Your task to perform on an android device: Open Youtube and go to "Your channel" Image 0: 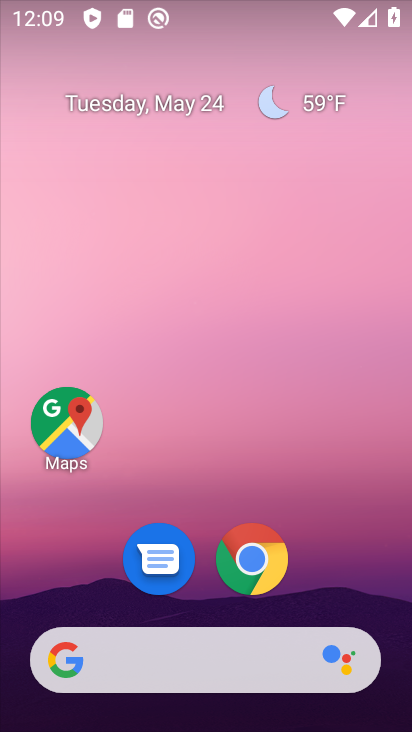
Step 0: click (377, 474)
Your task to perform on an android device: Open Youtube and go to "Your channel" Image 1: 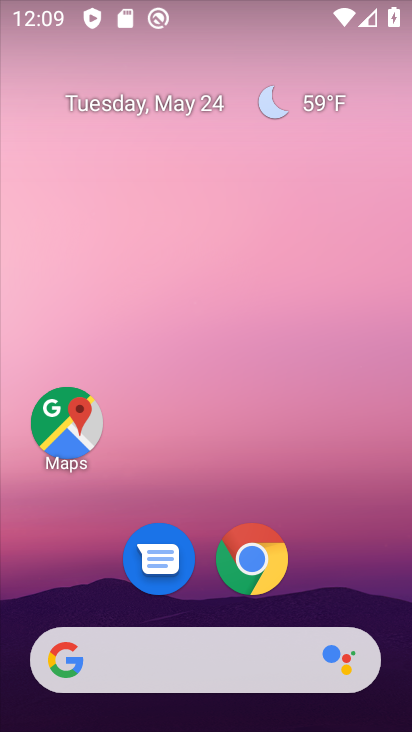
Step 1: drag from (398, 689) to (372, 306)
Your task to perform on an android device: Open Youtube and go to "Your channel" Image 2: 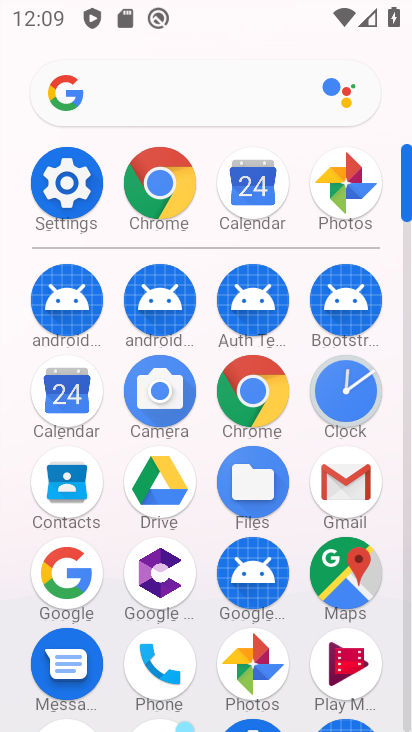
Step 2: drag from (402, 148) to (407, 88)
Your task to perform on an android device: Open Youtube and go to "Your channel" Image 3: 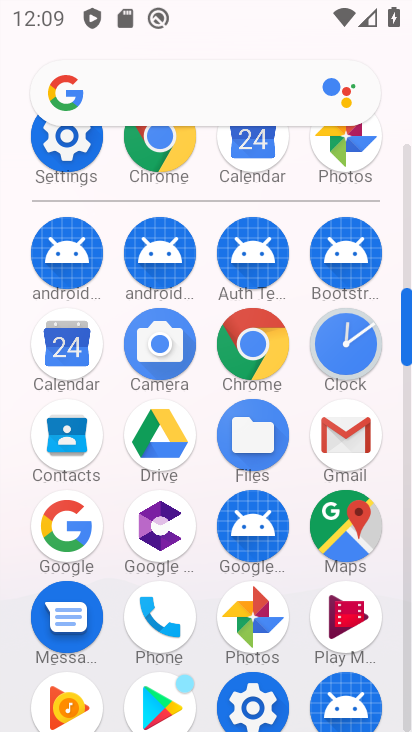
Step 3: drag from (405, 289) to (403, 208)
Your task to perform on an android device: Open Youtube and go to "Your channel" Image 4: 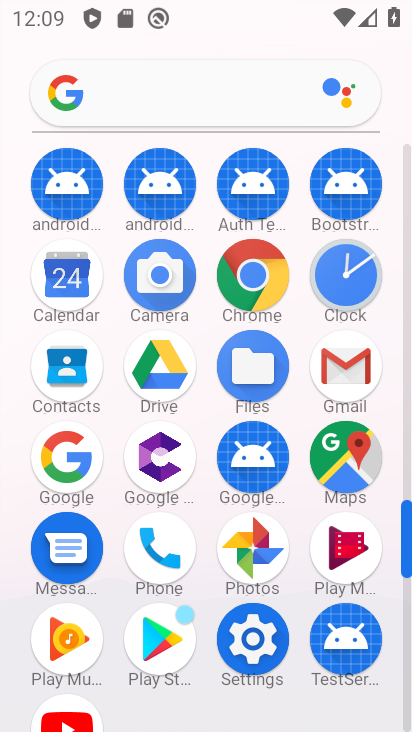
Step 4: click (69, 704)
Your task to perform on an android device: Open Youtube and go to "Your channel" Image 5: 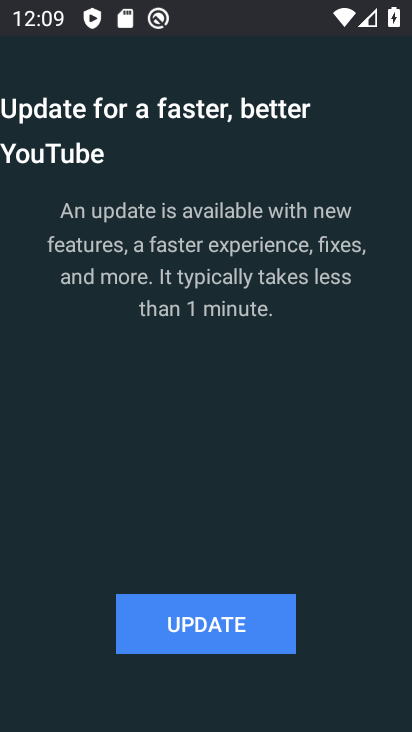
Step 5: click (277, 592)
Your task to perform on an android device: Open Youtube and go to "Your channel" Image 6: 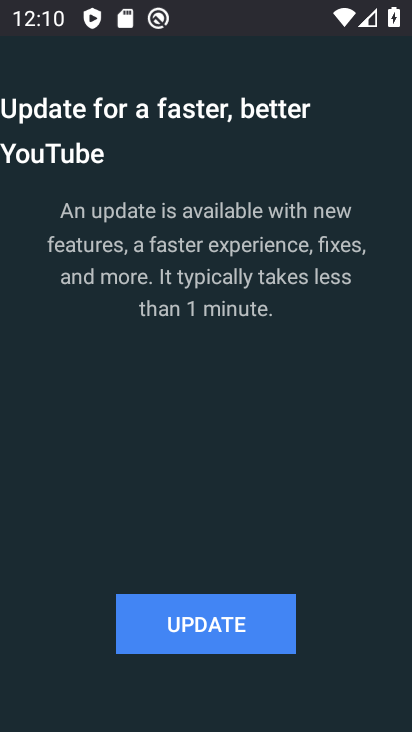
Step 6: click (238, 639)
Your task to perform on an android device: Open Youtube and go to "Your channel" Image 7: 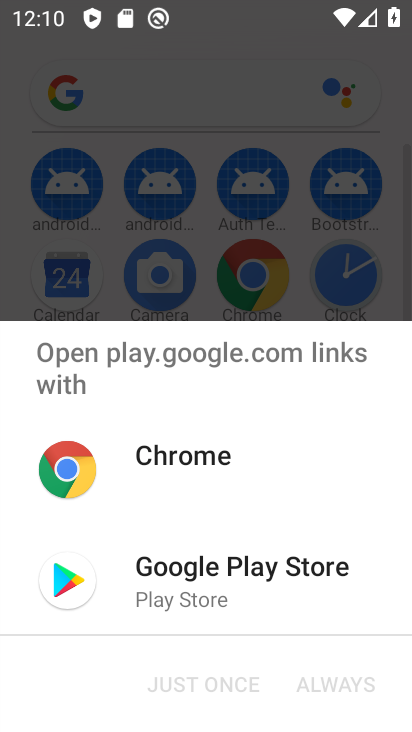
Step 7: click (155, 575)
Your task to perform on an android device: Open Youtube and go to "Your channel" Image 8: 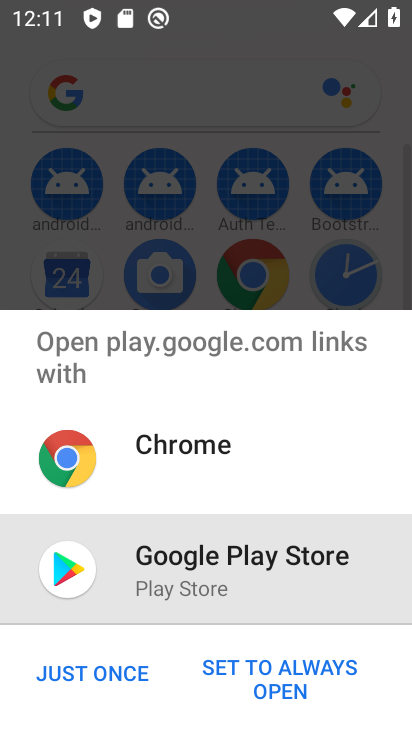
Step 8: click (102, 662)
Your task to perform on an android device: Open Youtube and go to "Your channel" Image 9: 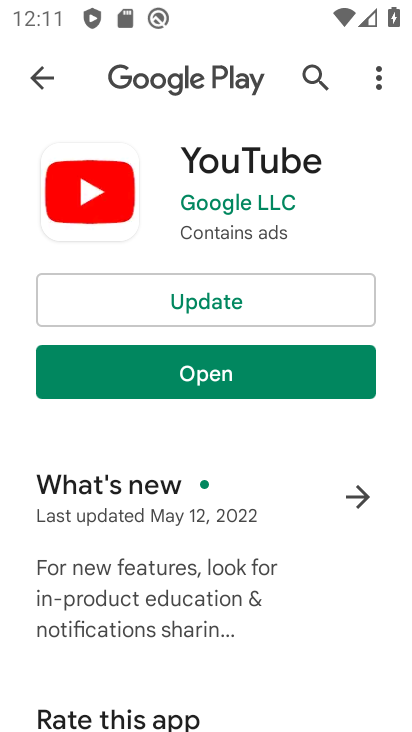
Step 9: click (233, 294)
Your task to perform on an android device: Open Youtube and go to "Your channel" Image 10: 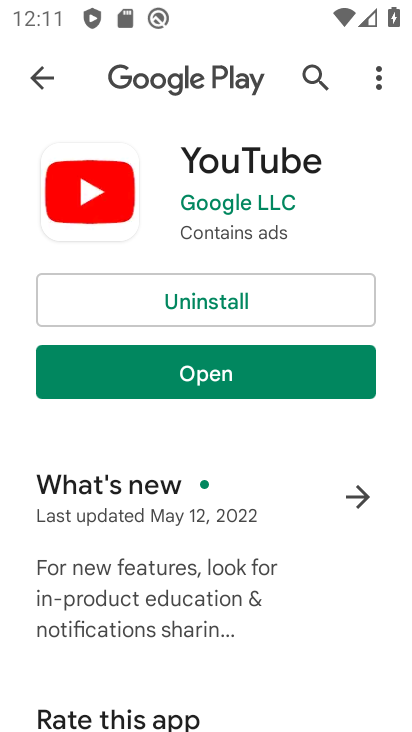
Step 10: click (247, 364)
Your task to perform on an android device: Open Youtube and go to "Your channel" Image 11: 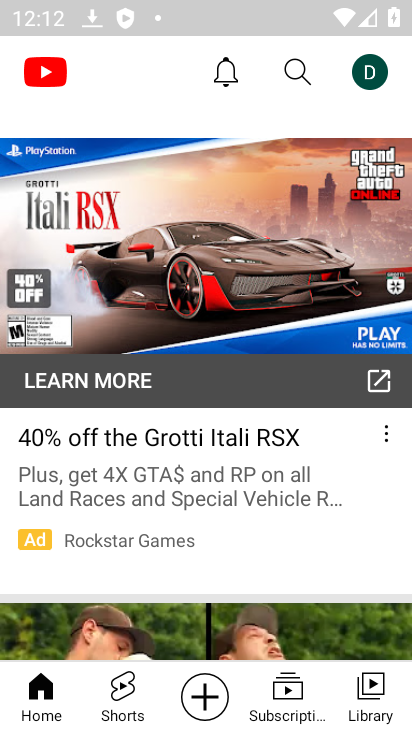
Step 11: click (378, 75)
Your task to perform on an android device: Open Youtube and go to "Your channel" Image 12: 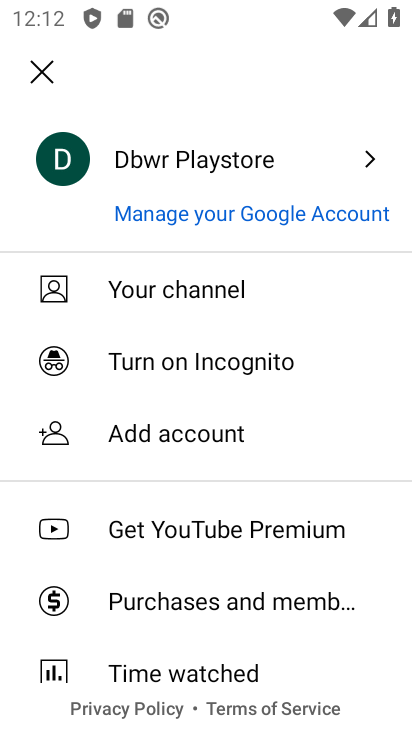
Step 12: click (210, 289)
Your task to perform on an android device: Open Youtube and go to "Your channel" Image 13: 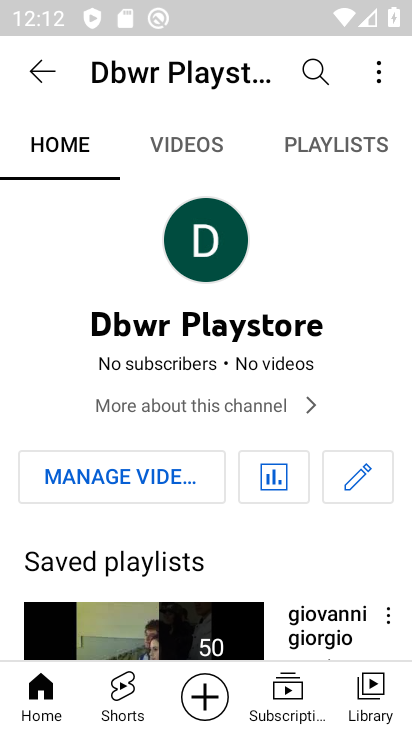
Step 13: task complete